Your task to perform on an android device: toggle sleep mode Image 0: 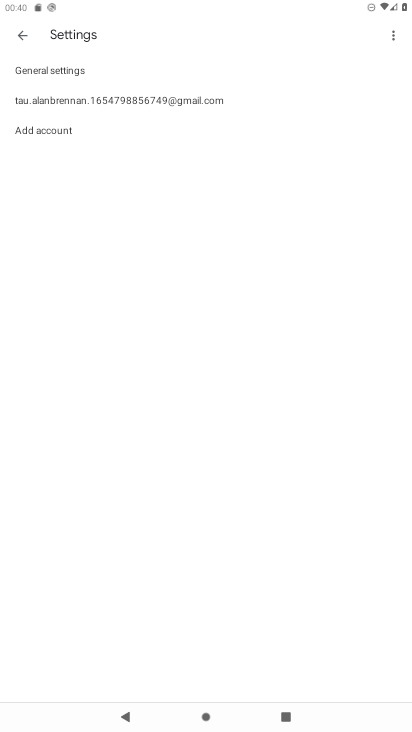
Step 0: press home button
Your task to perform on an android device: toggle sleep mode Image 1: 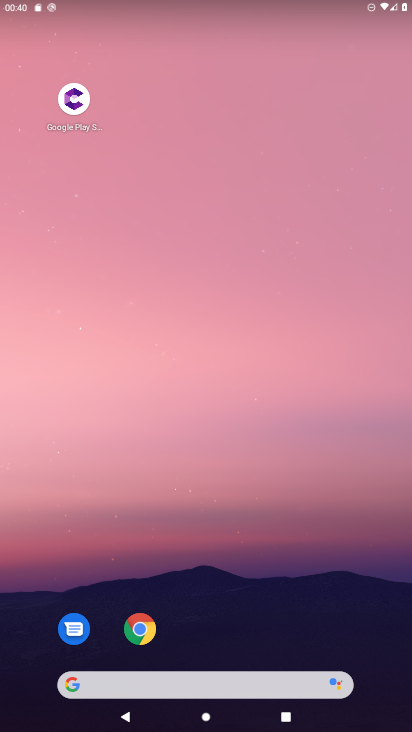
Step 1: drag from (196, 616) to (198, 90)
Your task to perform on an android device: toggle sleep mode Image 2: 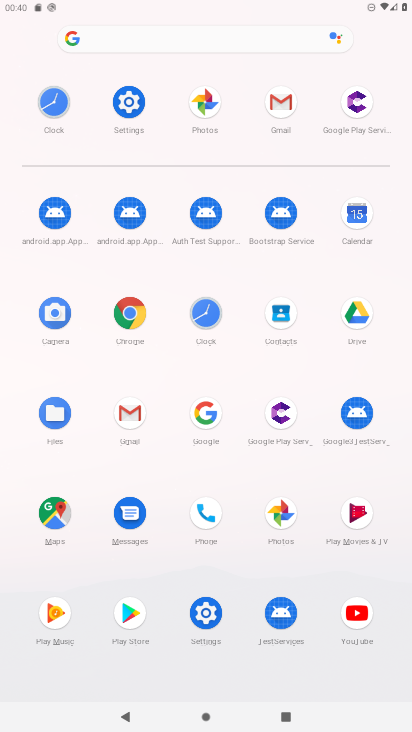
Step 2: click (121, 120)
Your task to perform on an android device: toggle sleep mode Image 3: 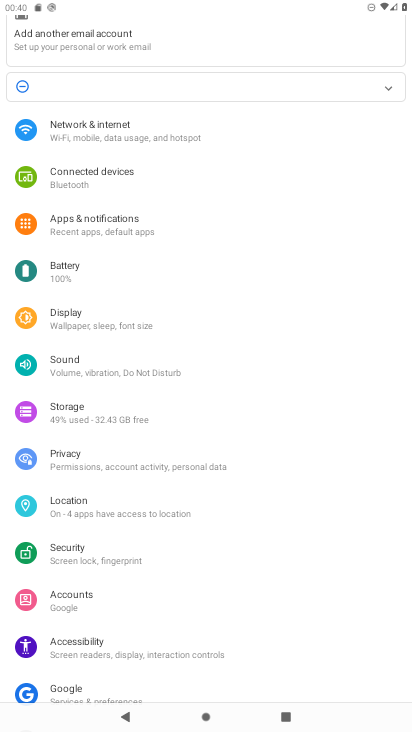
Step 3: task complete